Your task to perform on an android device: snooze an email in the gmail app Image 0: 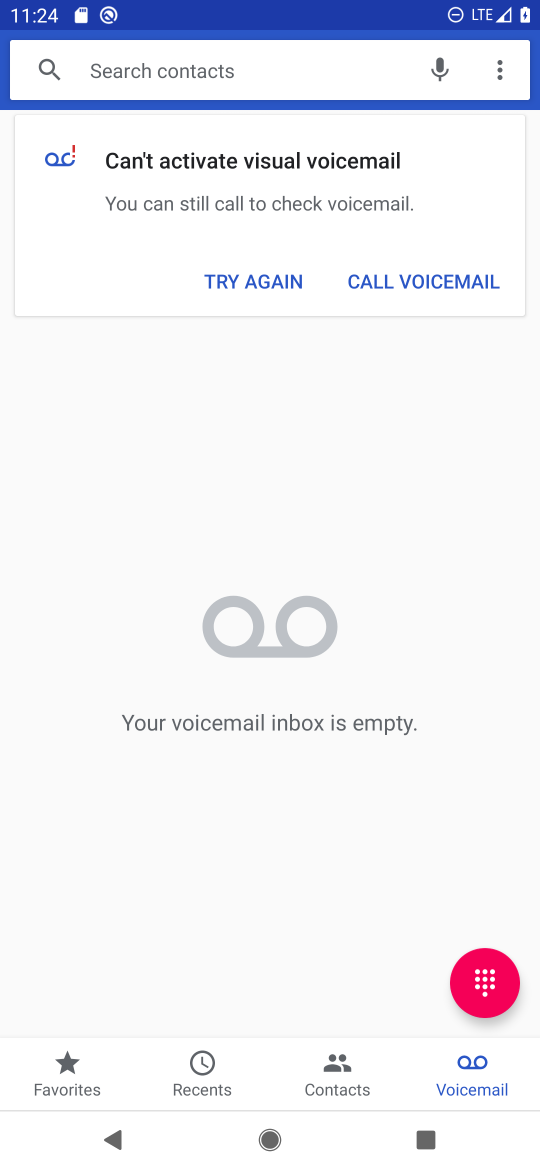
Step 0: press home button
Your task to perform on an android device: snooze an email in the gmail app Image 1: 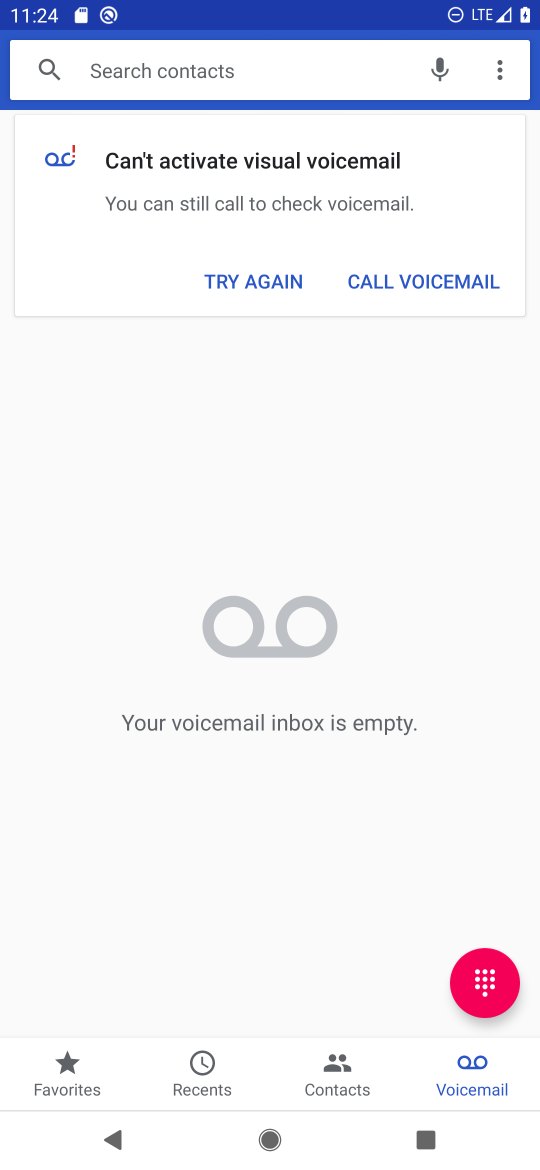
Step 1: press home button
Your task to perform on an android device: snooze an email in the gmail app Image 2: 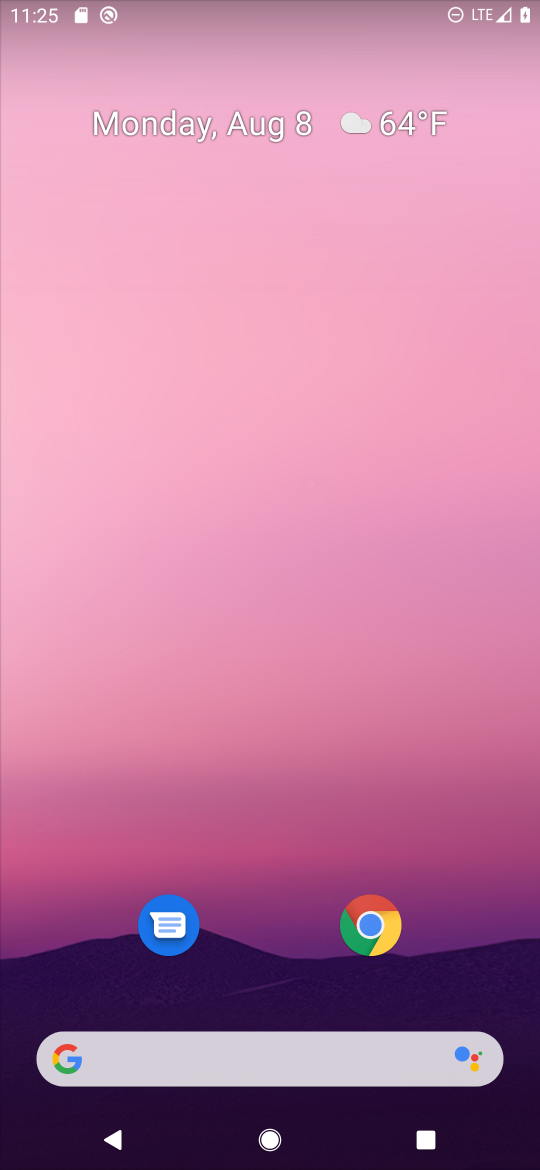
Step 2: drag from (226, 823) to (250, 100)
Your task to perform on an android device: snooze an email in the gmail app Image 3: 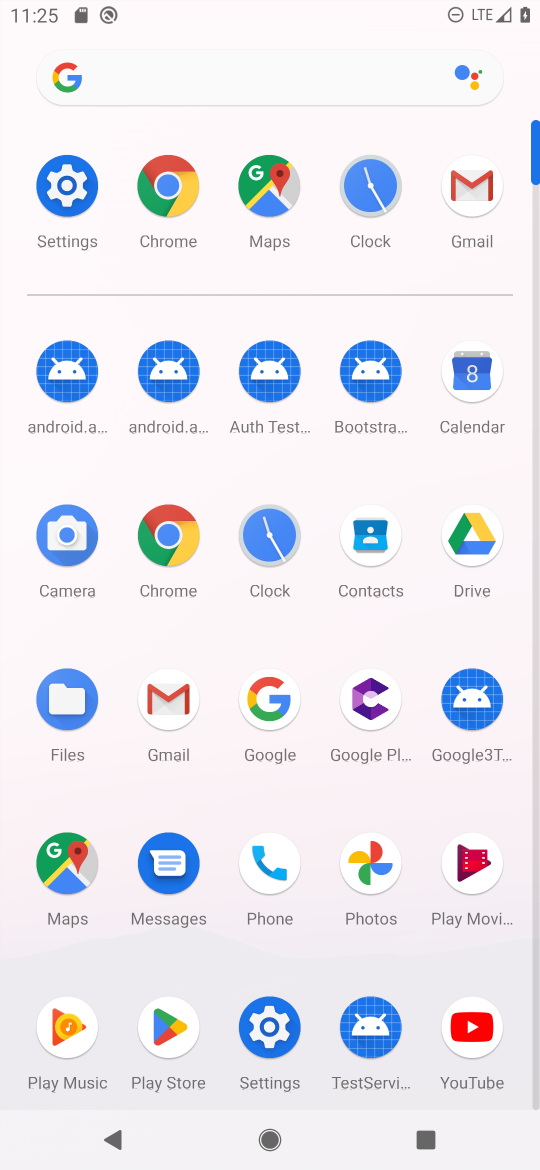
Step 3: click (171, 688)
Your task to perform on an android device: snooze an email in the gmail app Image 4: 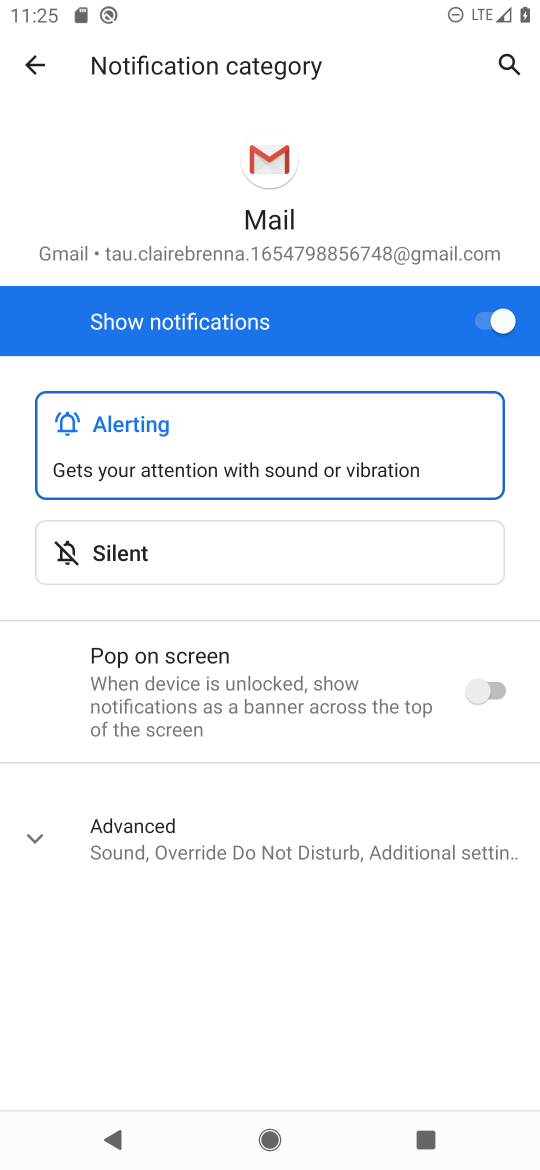
Step 4: click (41, 55)
Your task to perform on an android device: snooze an email in the gmail app Image 5: 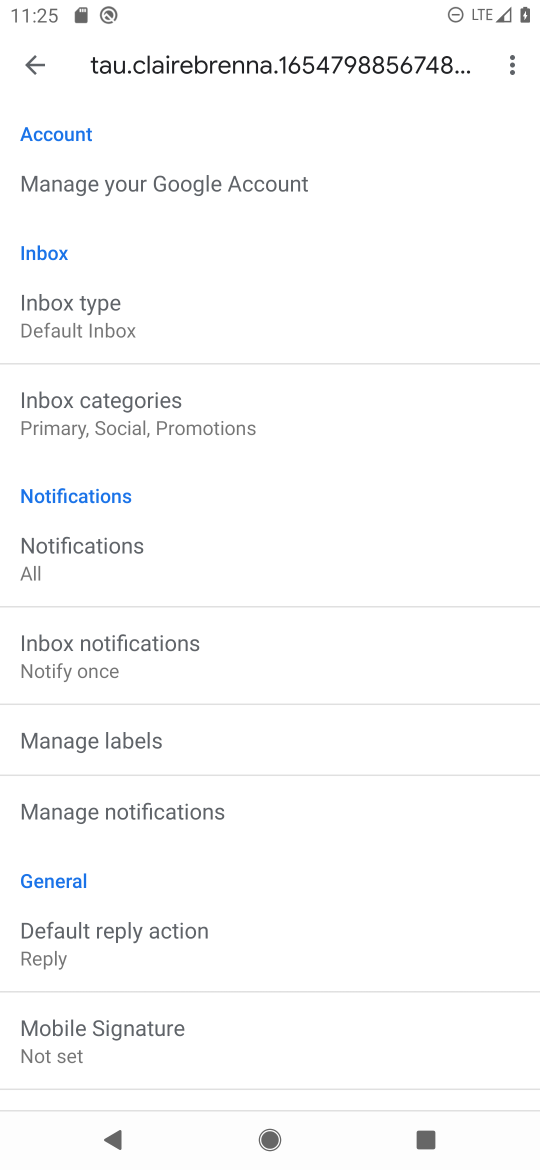
Step 5: click (27, 64)
Your task to perform on an android device: snooze an email in the gmail app Image 6: 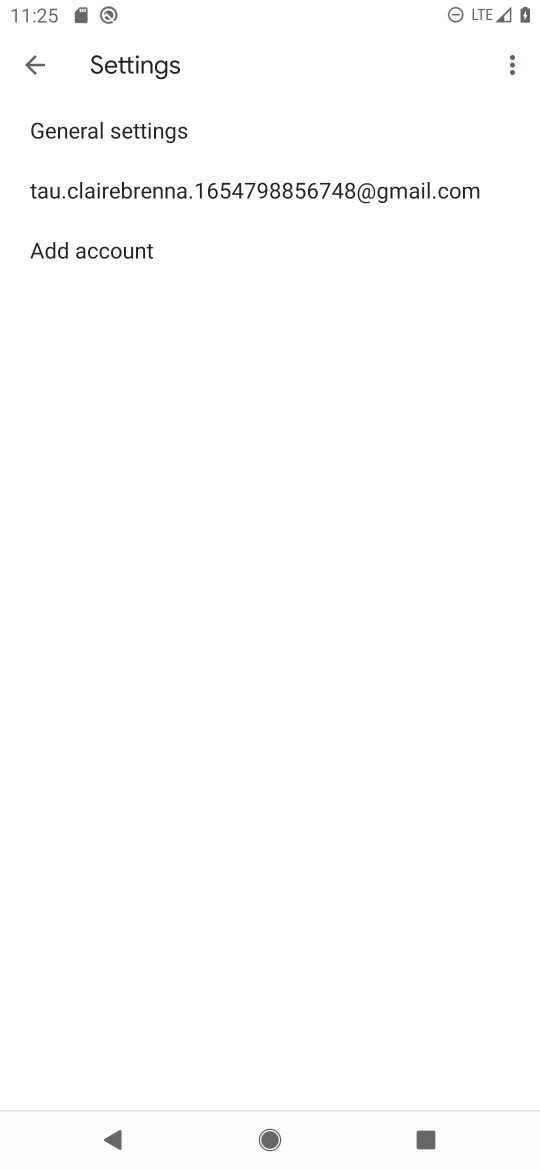
Step 6: click (21, 45)
Your task to perform on an android device: snooze an email in the gmail app Image 7: 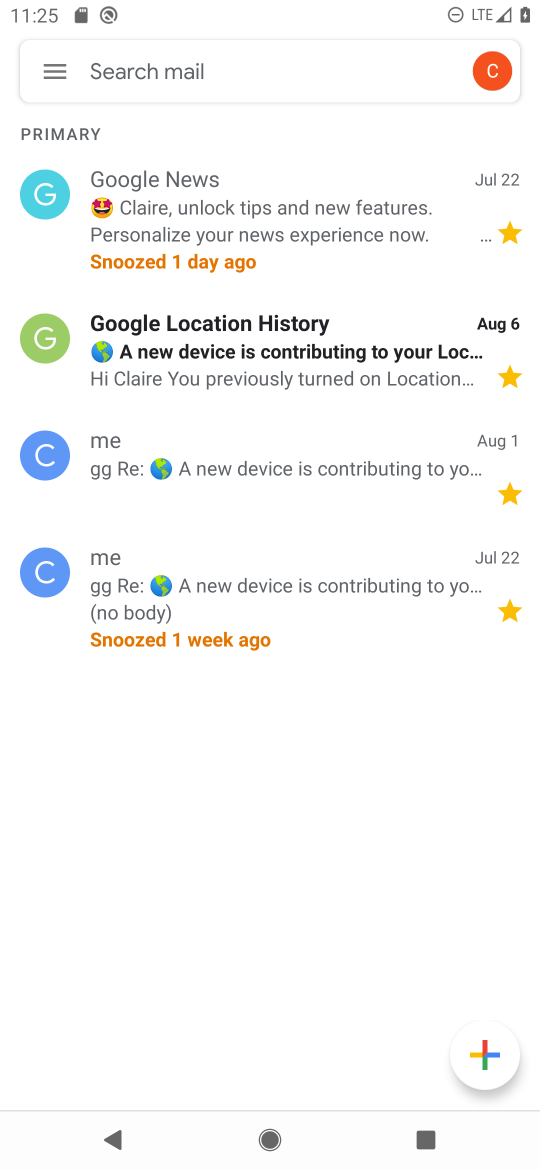
Step 7: click (41, 65)
Your task to perform on an android device: snooze an email in the gmail app Image 8: 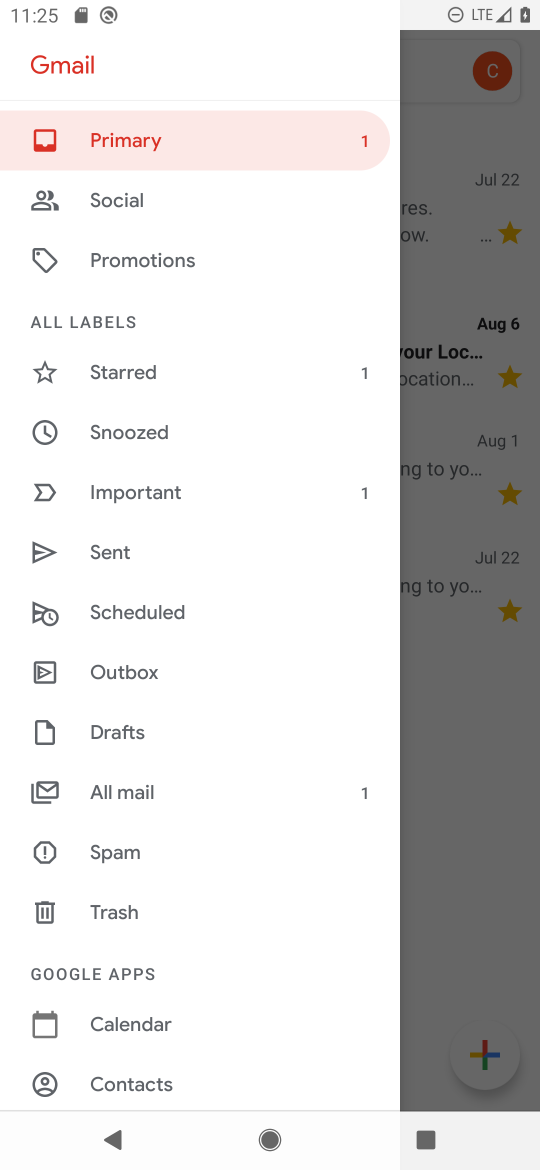
Step 8: click (144, 438)
Your task to perform on an android device: snooze an email in the gmail app Image 9: 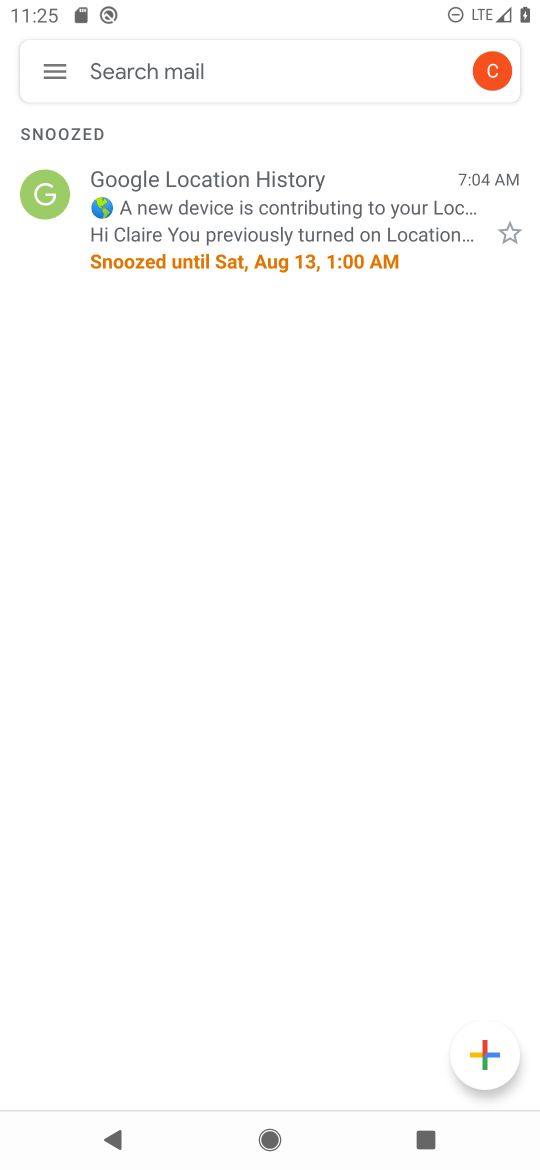
Step 9: click (176, 202)
Your task to perform on an android device: snooze an email in the gmail app Image 10: 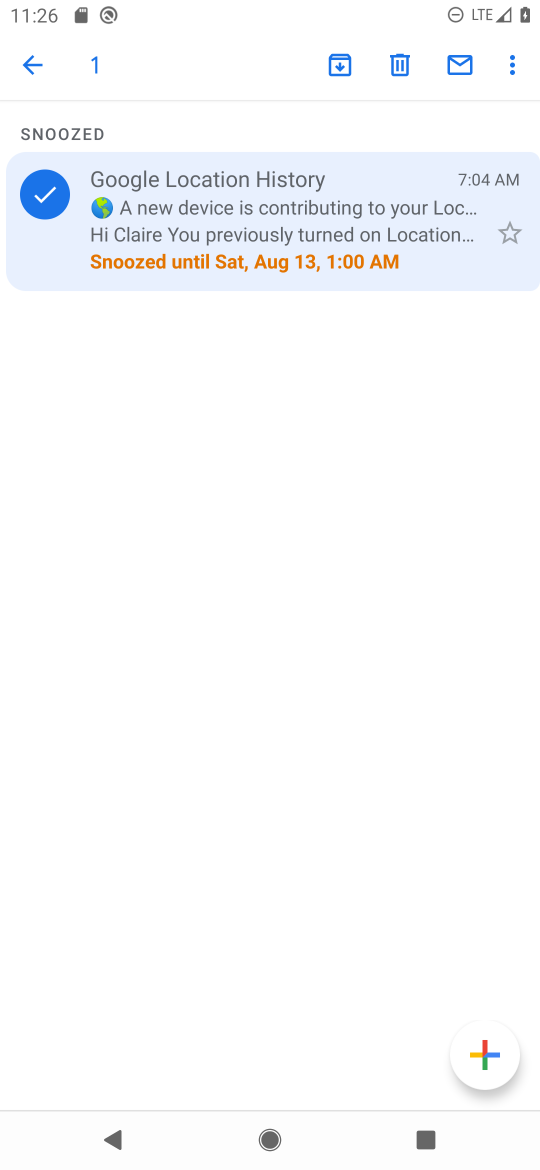
Step 10: click (516, 54)
Your task to perform on an android device: snooze an email in the gmail app Image 11: 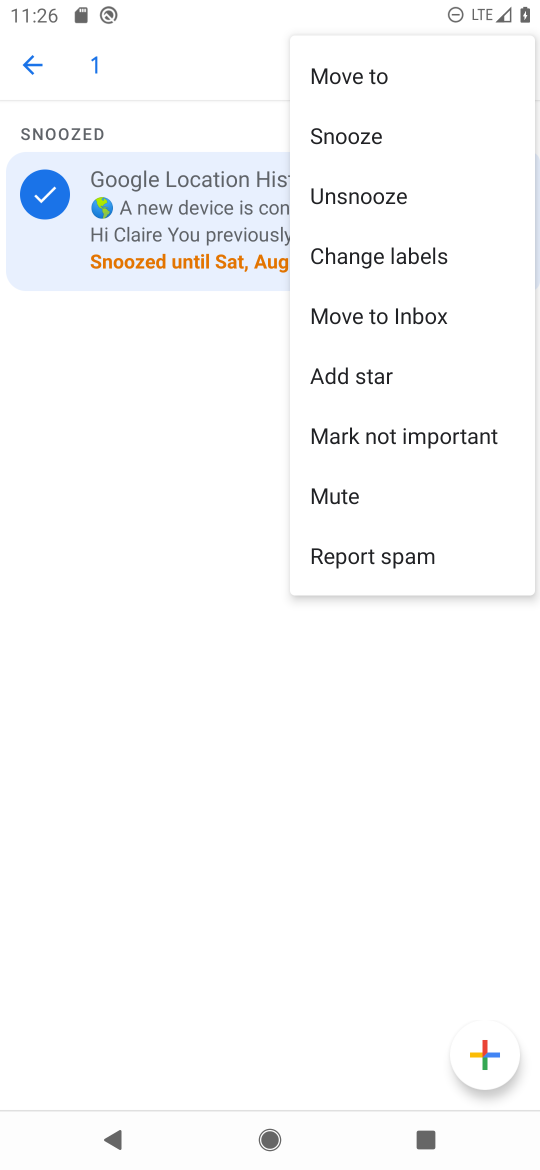
Step 11: click (356, 151)
Your task to perform on an android device: snooze an email in the gmail app Image 12: 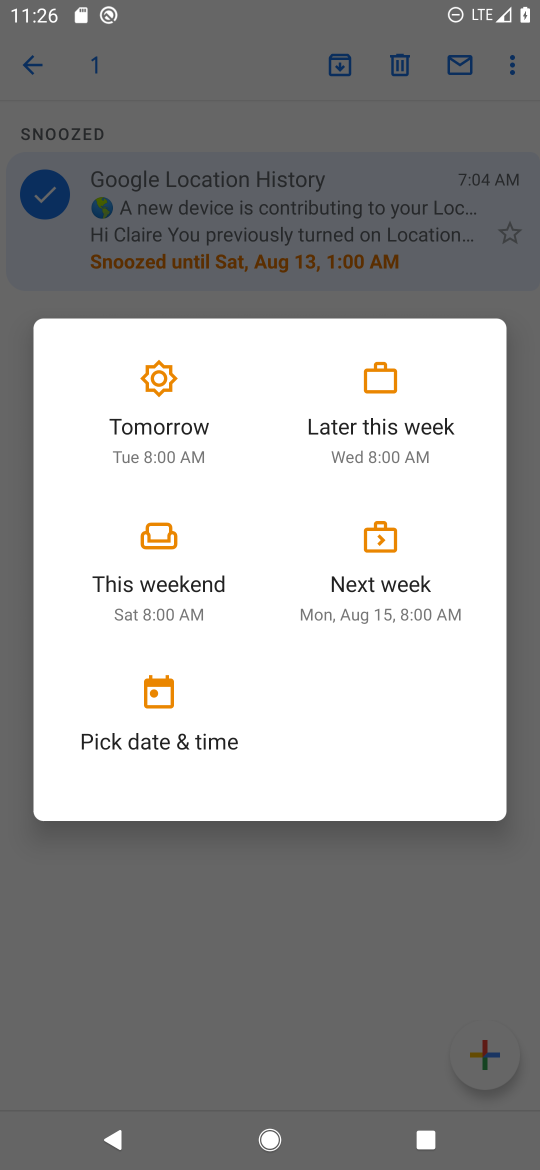
Step 12: click (185, 416)
Your task to perform on an android device: snooze an email in the gmail app Image 13: 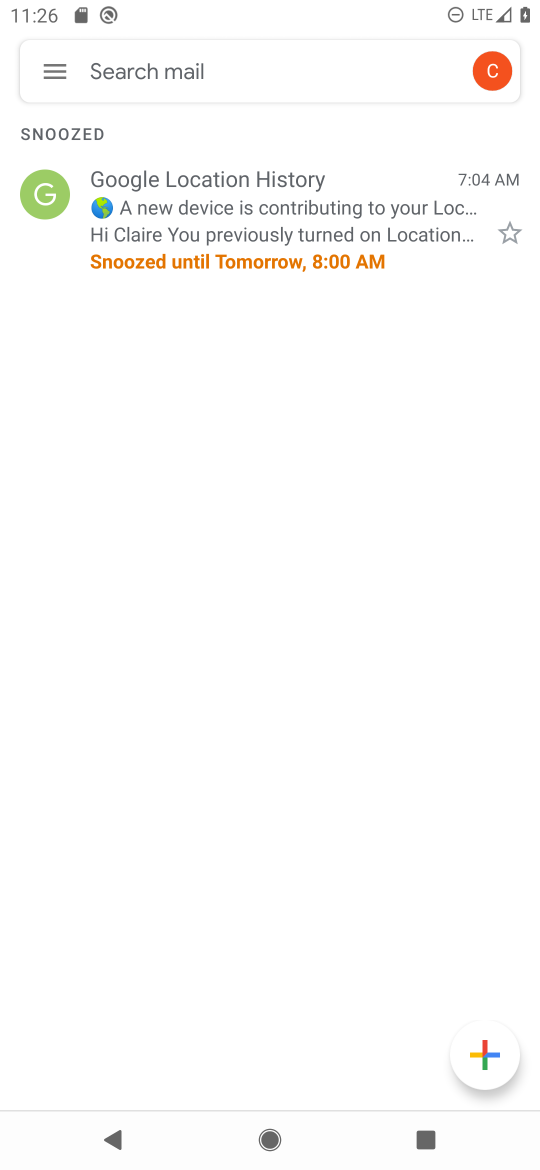
Step 13: task complete